Your task to perform on an android device: turn on translation in the chrome app Image 0: 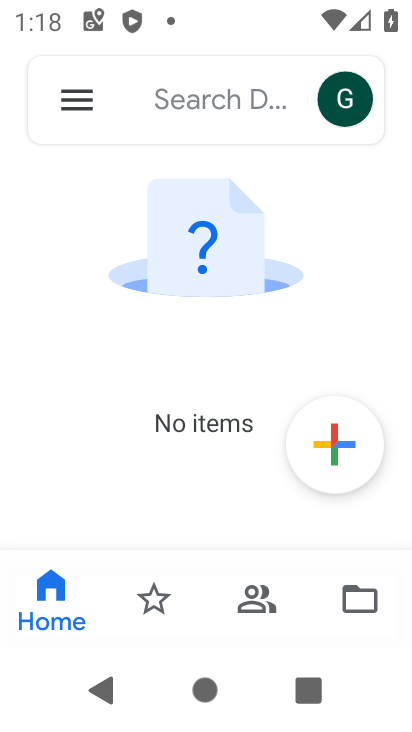
Step 0: press home button
Your task to perform on an android device: turn on translation in the chrome app Image 1: 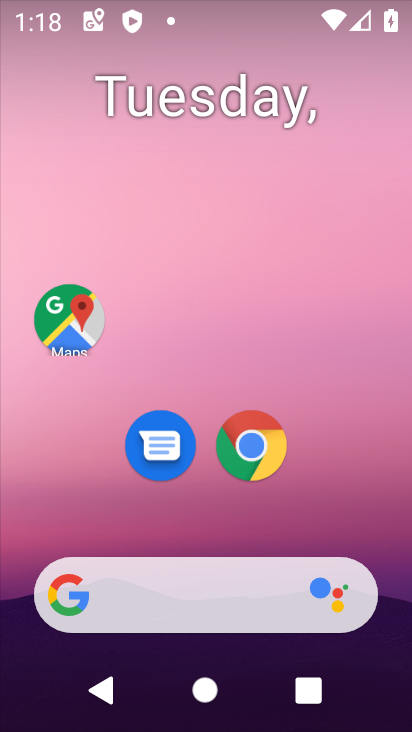
Step 1: click (249, 439)
Your task to perform on an android device: turn on translation in the chrome app Image 2: 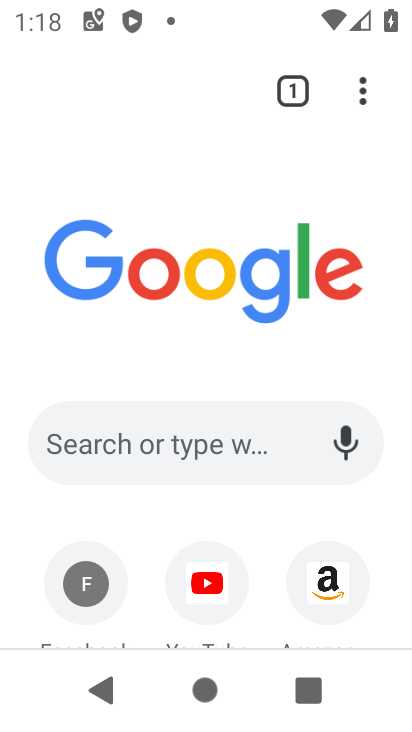
Step 2: click (366, 85)
Your task to perform on an android device: turn on translation in the chrome app Image 3: 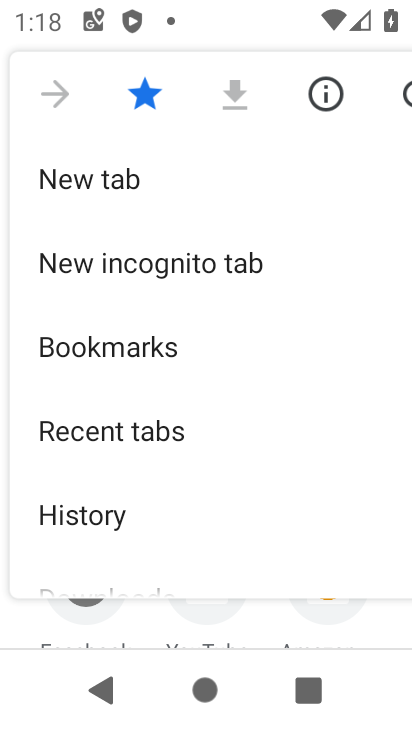
Step 3: drag from (179, 537) to (219, 76)
Your task to perform on an android device: turn on translation in the chrome app Image 4: 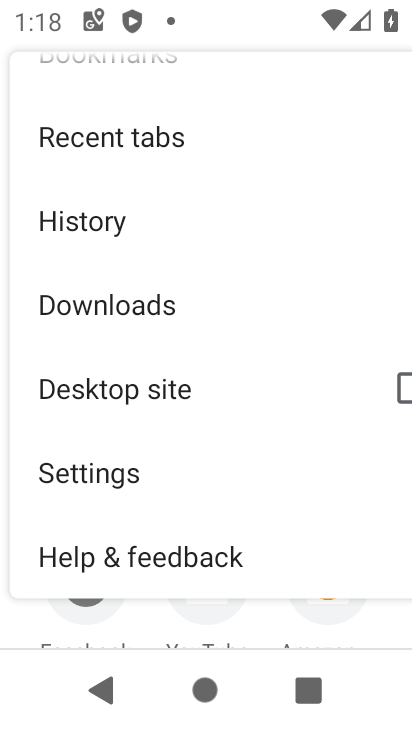
Step 4: click (150, 469)
Your task to perform on an android device: turn on translation in the chrome app Image 5: 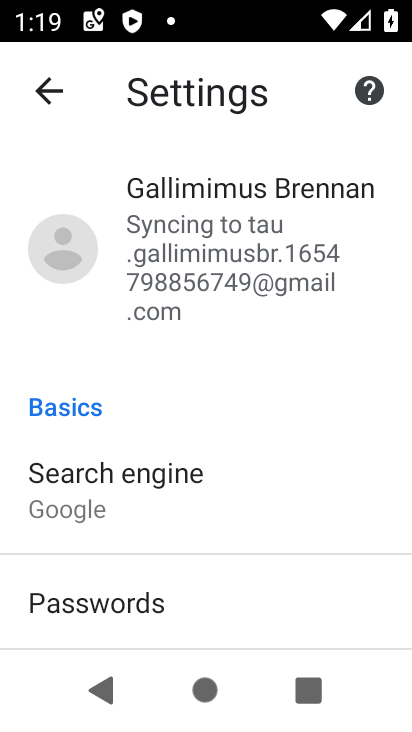
Step 5: drag from (230, 601) to (235, 100)
Your task to perform on an android device: turn on translation in the chrome app Image 6: 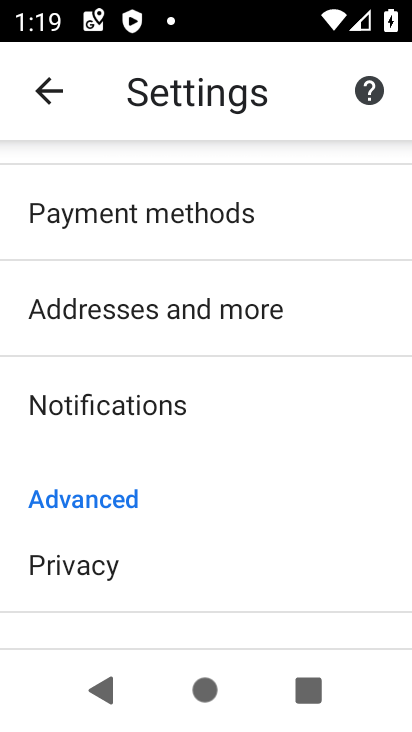
Step 6: drag from (204, 607) to (207, 180)
Your task to perform on an android device: turn on translation in the chrome app Image 7: 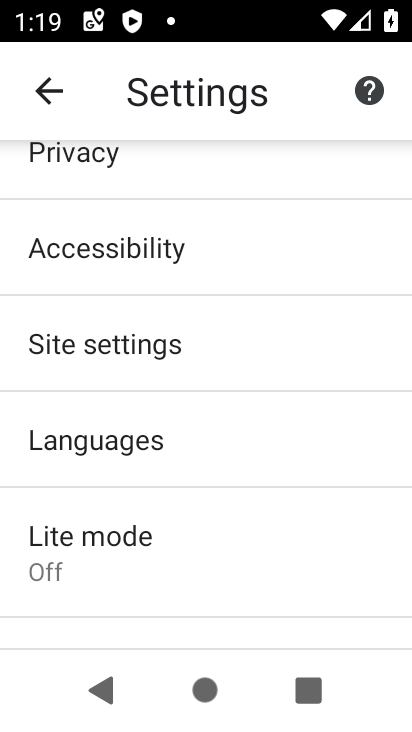
Step 7: click (184, 437)
Your task to perform on an android device: turn on translation in the chrome app Image 8: 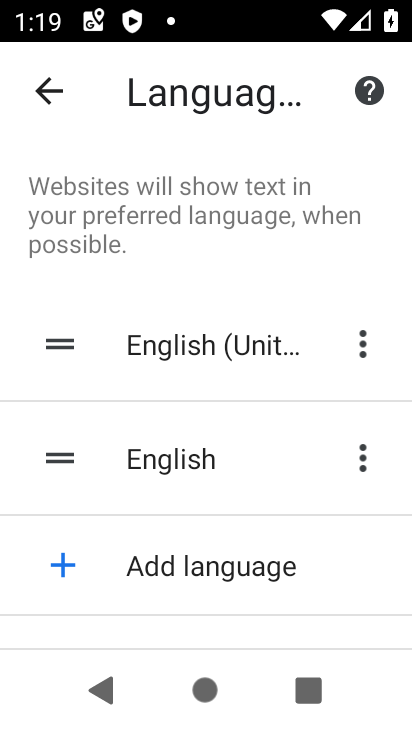
Step 8: task complete